Your task to perform on an android device: turn on bluetooth scan Image 0: 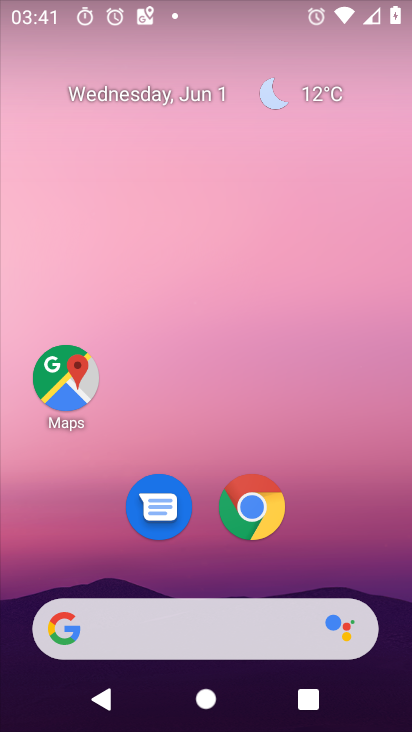
Step 0: drag from (344, 589) to (359, 10)
Your task to perform on an android device: turn on bluetooth scan Image 1: 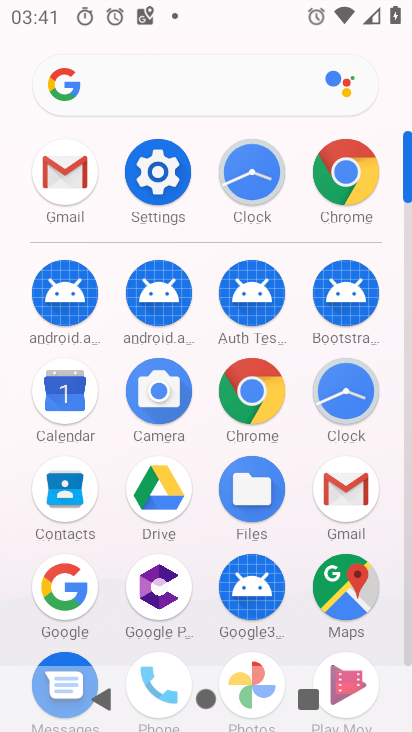
Step 1: click (159, 180)
Your task to perform on an android device: turn on bluetooth scan Image 2: 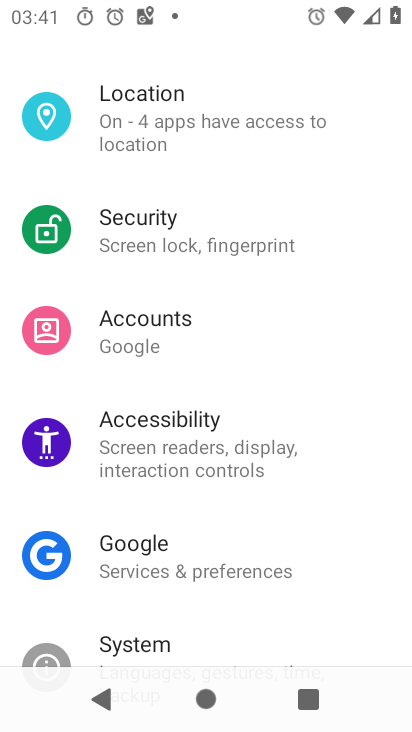
Step 2: click (156, 131)
Your task to perform on an android device: turn on bluetooth scan Image 3: 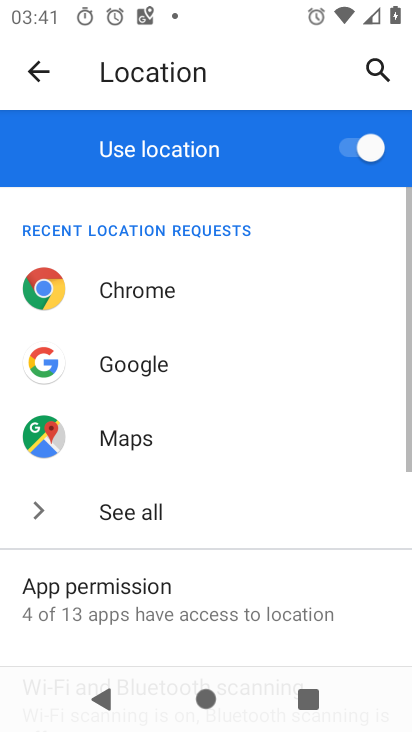
Step 3: drag from (187, 556) to (148, 196)
Your task to perform on an android device: turn on bluetooth scan Image 4: 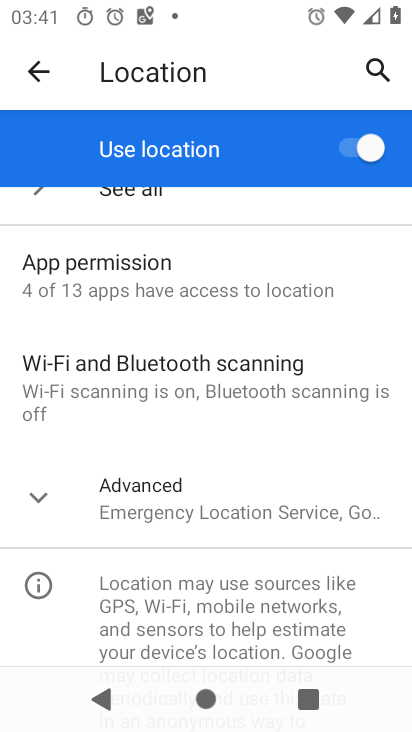
Step 4: click (138, 381)
Your task to perform on an android device: turn on bluetooth scan Image 5: 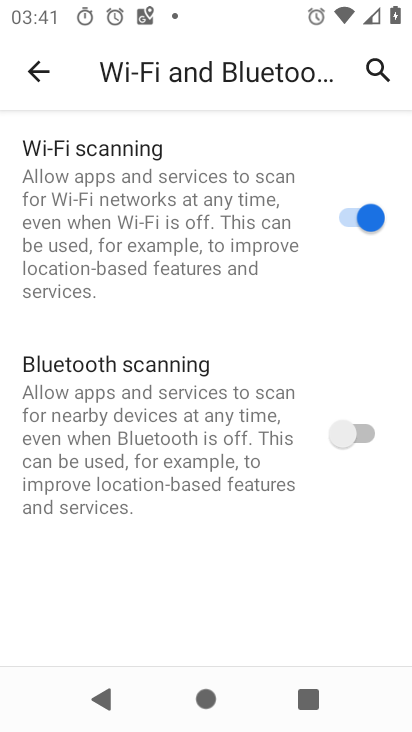
Step 5: click (347, 435)
Your task to perform on an android device: turn on bluetooth scan Image 6: 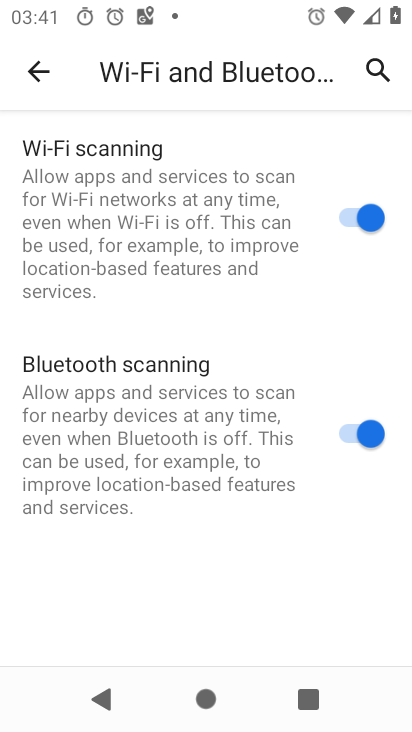
Step 6: task complete